Your task to perform on an android device: Open Yahoo.com Image 0: 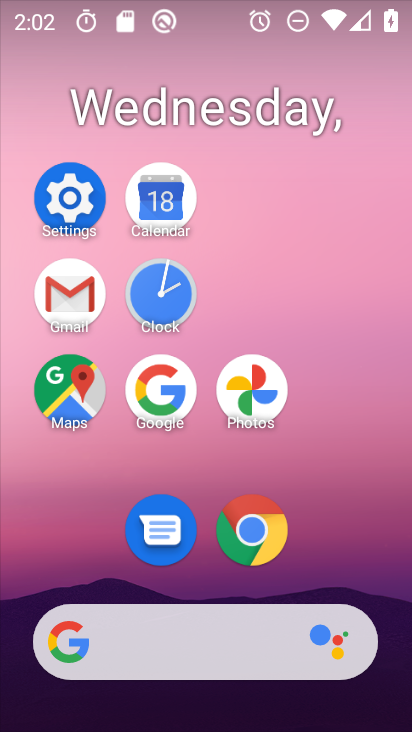
Step 0: click (266, 548)
Your task to perform on an android device: Open Yahoo.com Image 1: 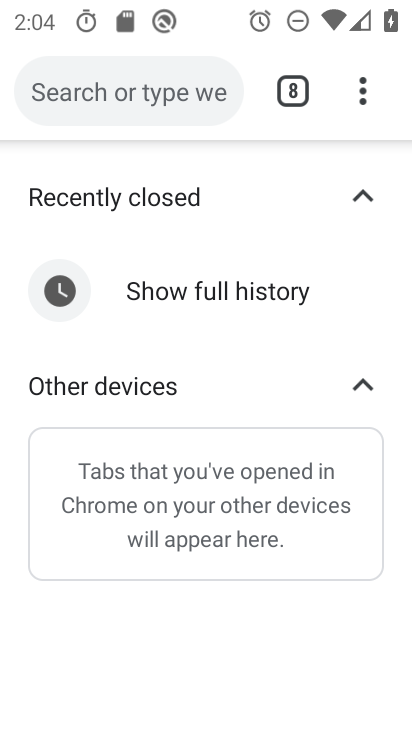
Step 1: click (304, 81)
Your task to perform on an android device: Open Yahoo.com Image 2: 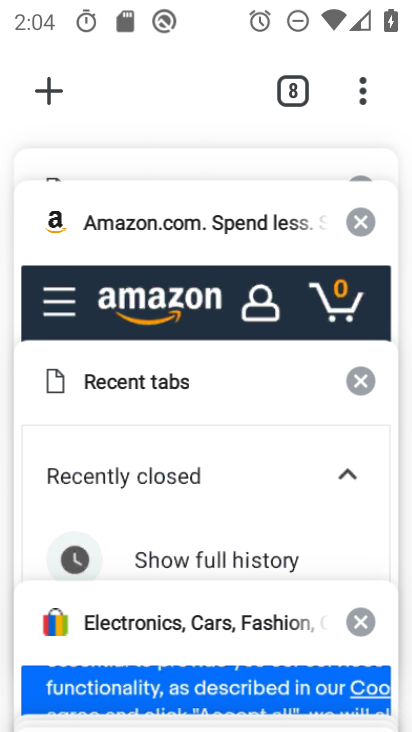
Step 2: drag from (180, 279) to (165, 547)
Your task to perform on an android device: Open Yahoo.com Image 3: 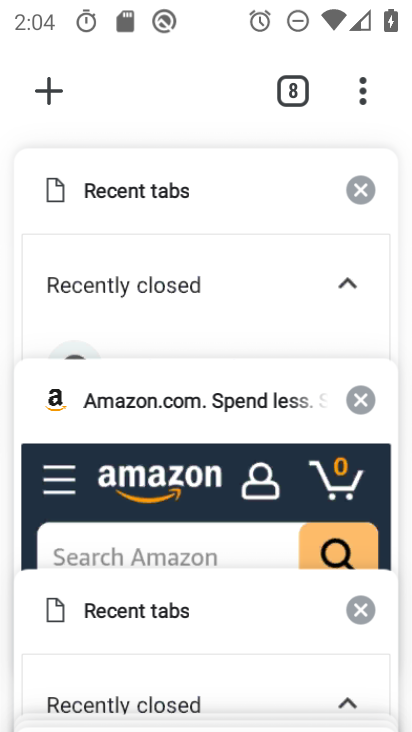
Step 3: drag from (201, 257) to (191, 600)
Your task to perform on an android device: Open Yahoo.com Image 4: 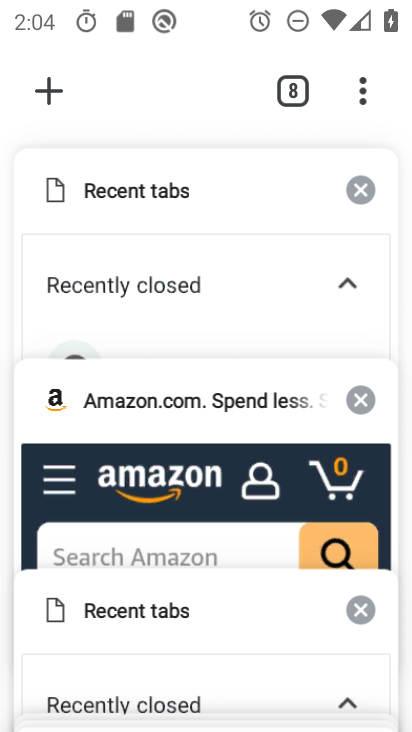
Step 4: drag from (210, 183) to (193, 567)
Your task to perform on an android device: Open Yahoo.com Image 5: 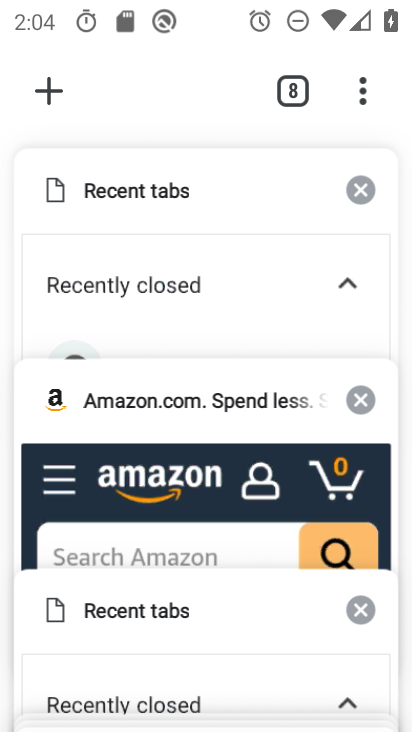
Step 5: drag from (167, 490) to (200, 149)
Your task to perform on an android device: Open Yahoo.com Image 6: 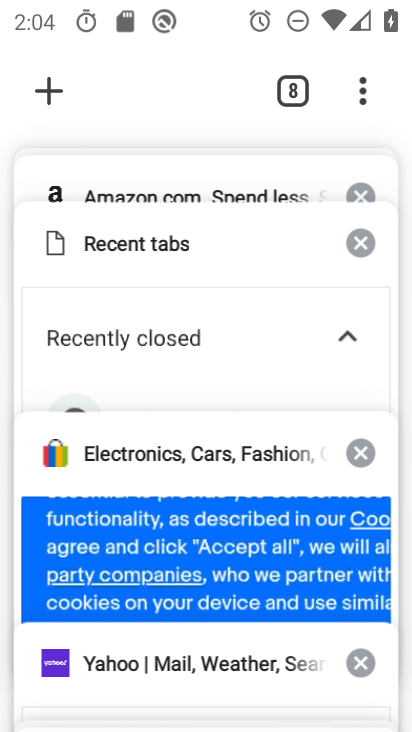
Step 6: drag from (187, 476) to (230, 130)
Your task to perform on an android device: Open Yahoo.com Image 7: 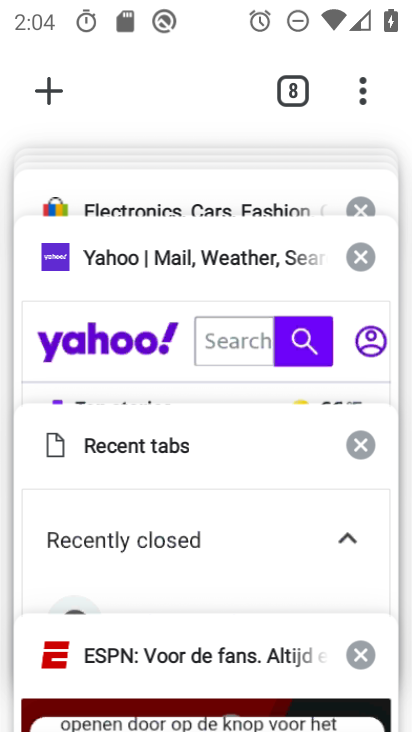
Step 7: click (149, 321)
Your task to perform on an android device: Open Yahoo.com Image 8: 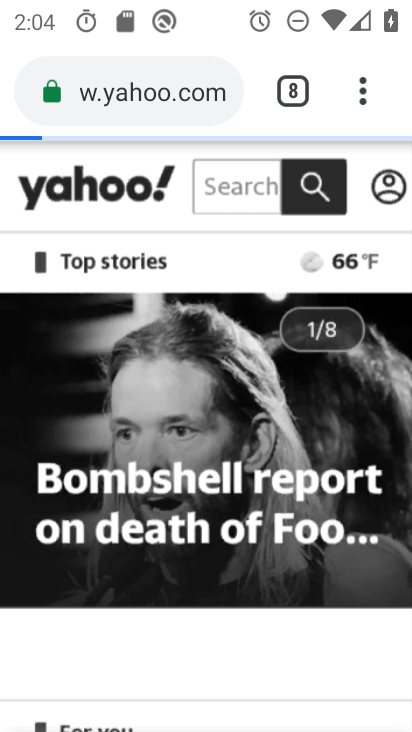
Step 8: task complete